Your task to perform on an android device: open a new tab in the chrome app Image 0: 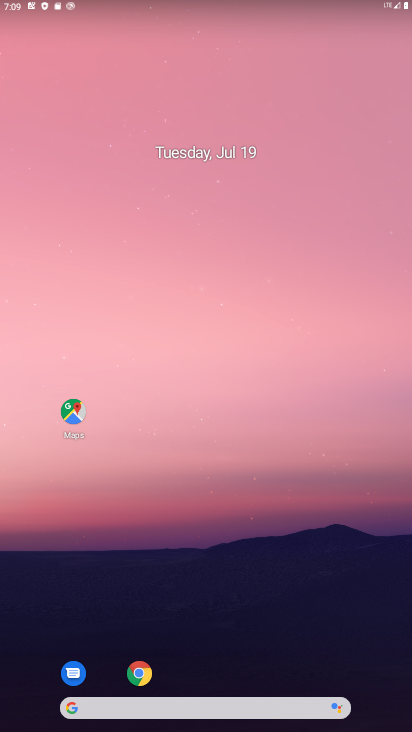
Step 0: drag from (397, 678) to (217, 28)
Your task to perform on an android device: open a new tab in the chrome app Image 1: 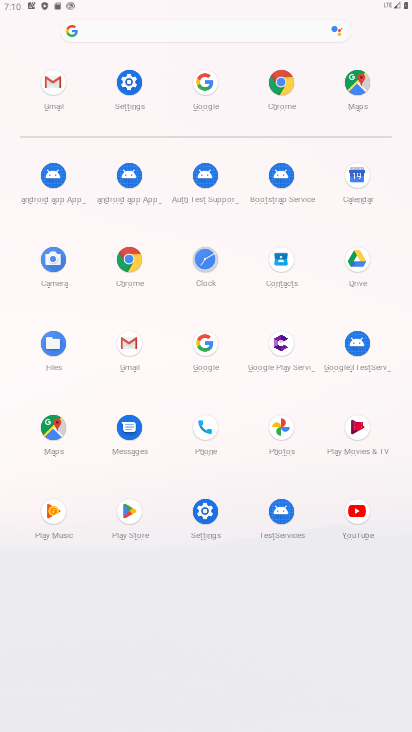
Step 1: click (131, 273)
Your task to perform on an android device: open a new tab in the chrome app Image 2: 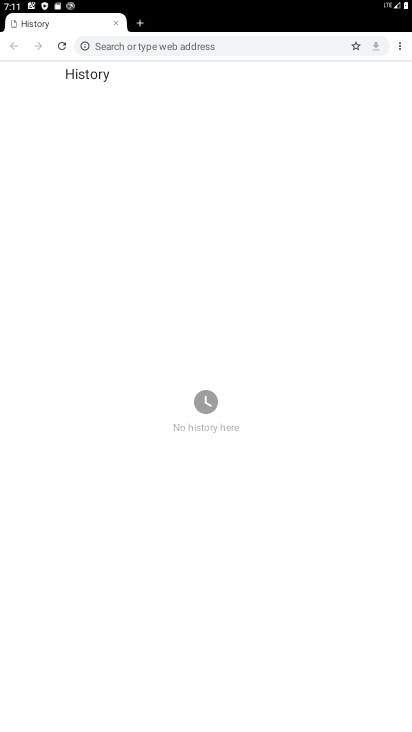
Step 2: click (399, 41)
Your task to perform on an android device: open a new tab in the chrome app Image 3: 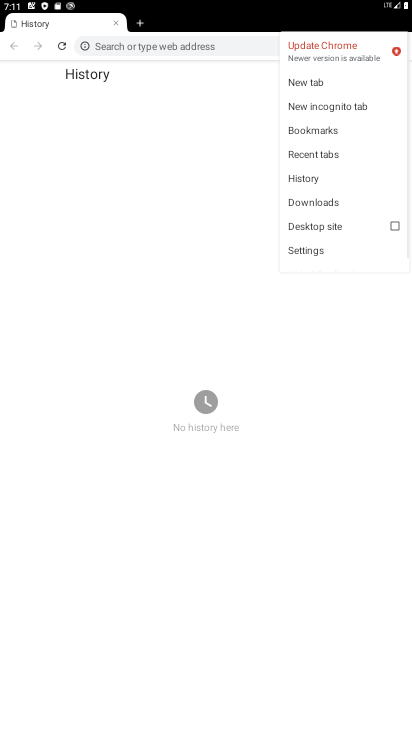
Step 3: click (331, 87)
Your task to perform on an android device: open a new tab in the chrome app Image 4: 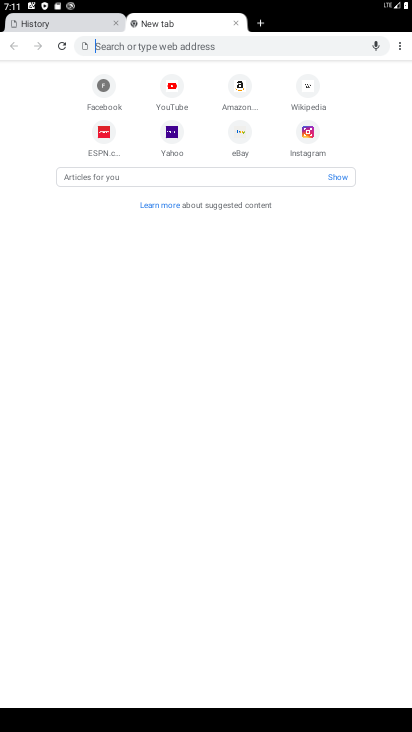
Step 4: task complete